Your task to perform on an android device: delete a single message in the gmail app Image 0: 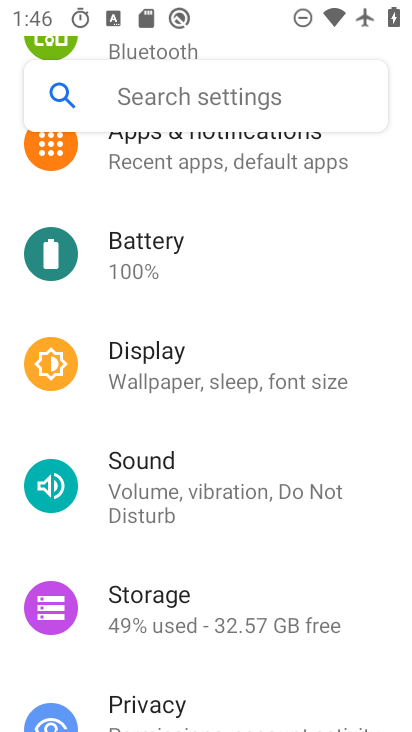
Step 0: press home button
Your task to perform on an android device: delete a single message in the gmail app Image 1: 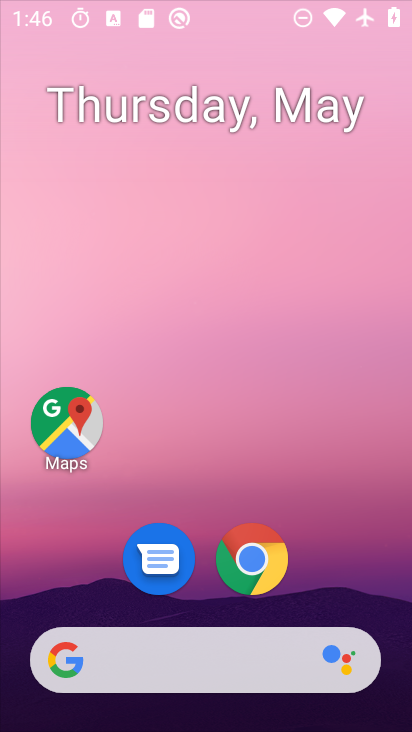
Step 1: drag from (214, 651) to (296, 61)
Your task to perform on an android device: delete a single message in the gmail app Image 2: 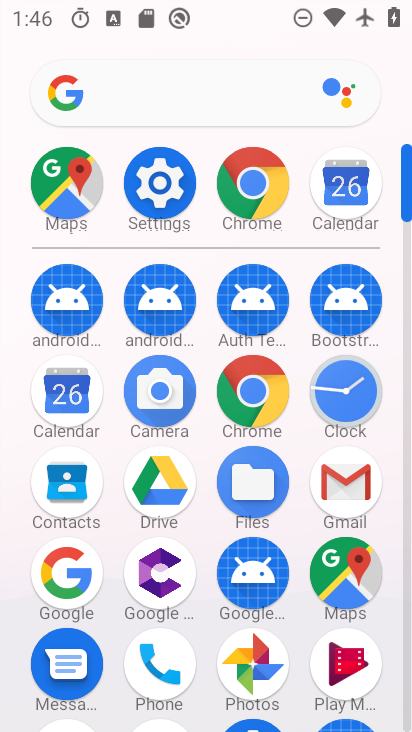
Step 2: click (353, 484)
Your task to perform on an android device: delete a single message in the gmail app Image 3: 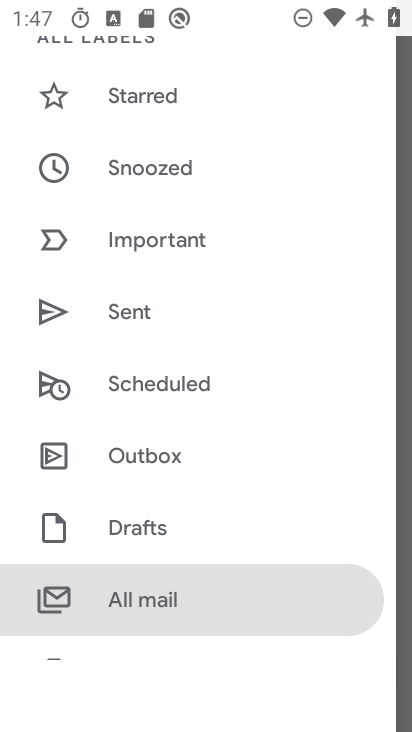
Step 3: drag from (235, 291) to (238, 523)
Your task to perform on an android device: delete a single message in the gmail app Image 4: 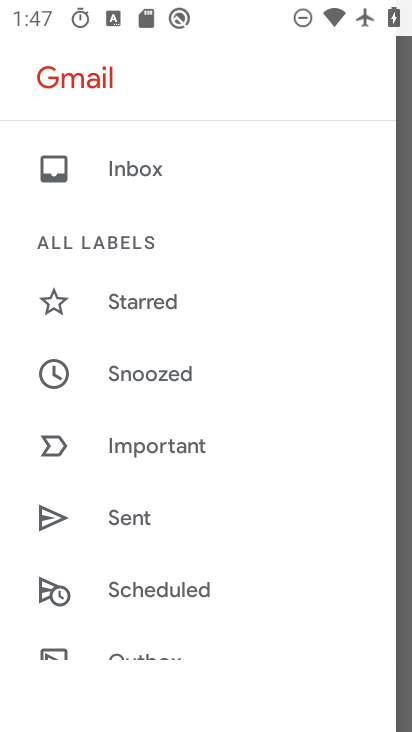
Step 4: drag from (244, 271) to (240, 511)
Your task to perform on an android device: delete a single message in the gmail app Image 5: 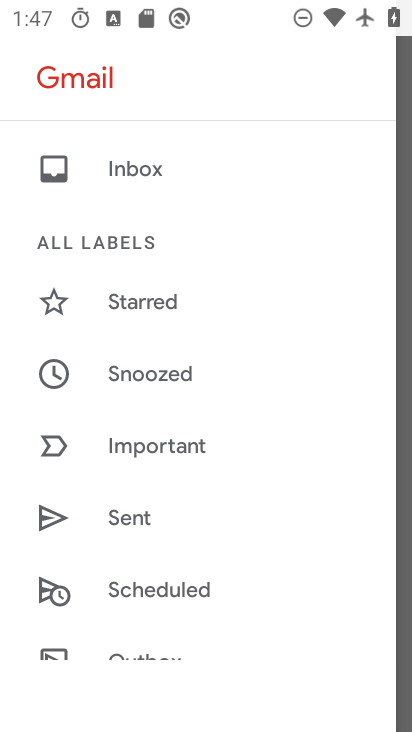
Step 5: drag from (218, 558) to (318, 14)
Your task to perform on an android device: delete a single message in the gmail app Image 6: 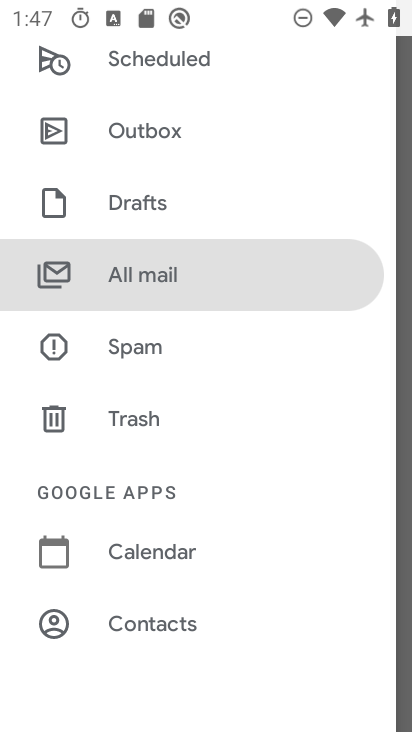
Step 6: click (308, 288)
Your task to perform on an android device: delete a single message in the gmail app Image 7: 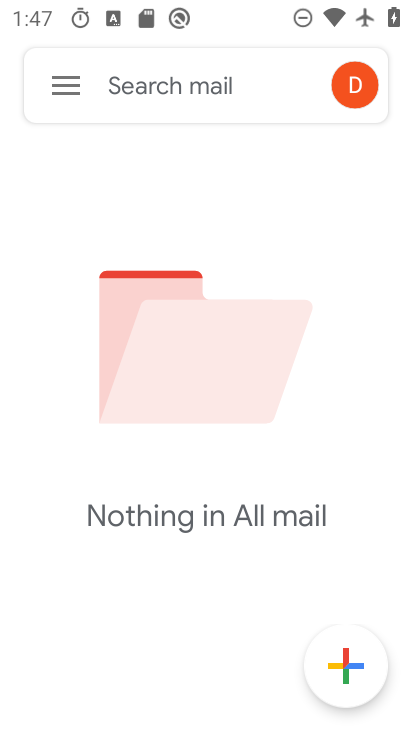
Step 7: task complete